Your task to perform on an android device: Clear all items from cart on amazon. Add panasonic triple a to the cart on amazon, then select checkout. Image 0: 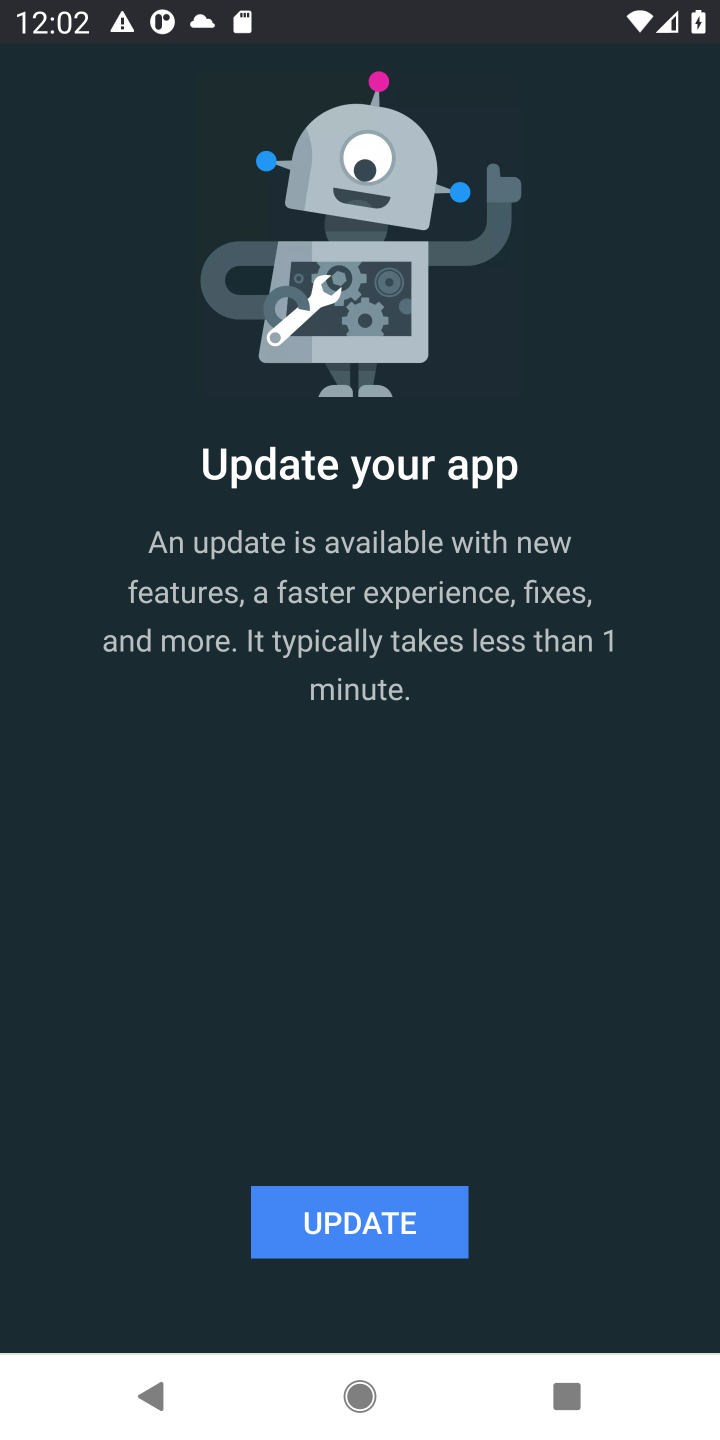
Step 0: press home button
Your task to perform on an android device: Clear all items from cart on amazon. Add panasonic triple a to the cart on amazon, then select checkout. Image 1: 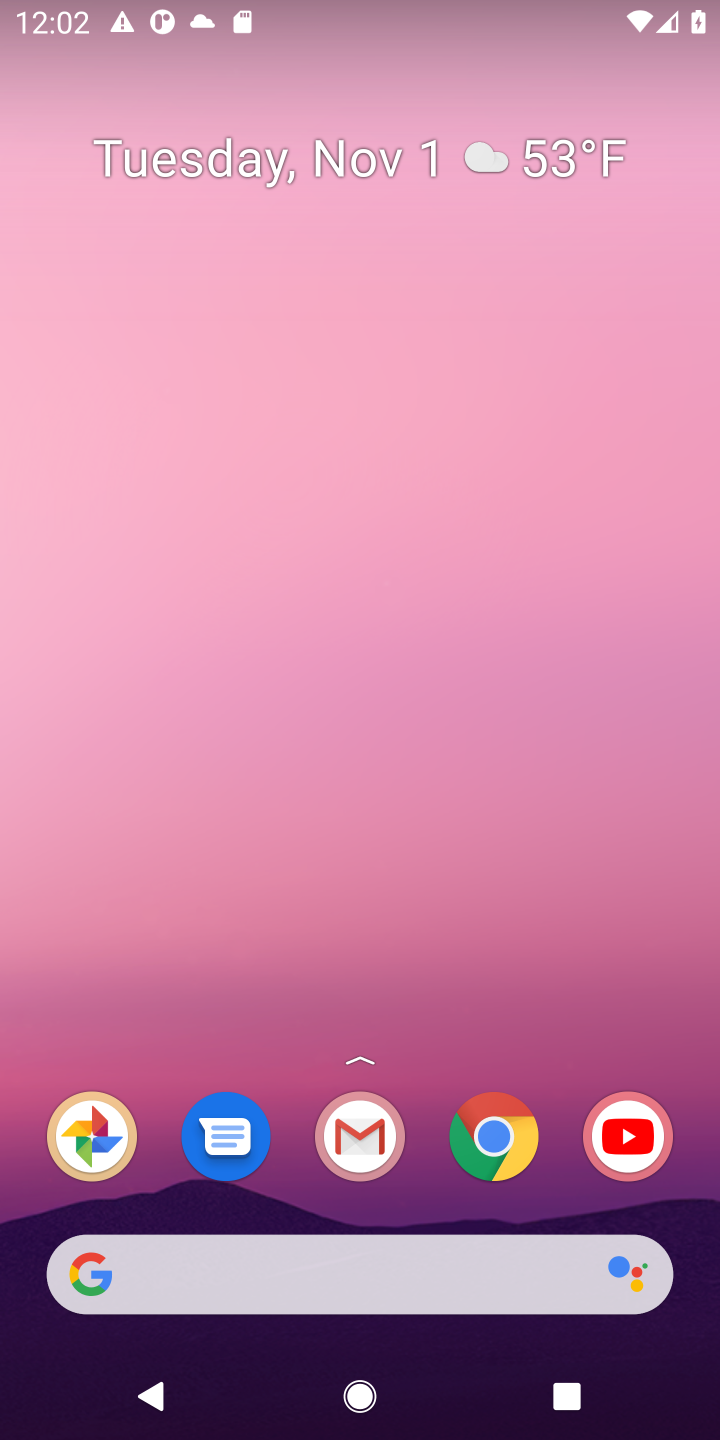
Step 1: click (135, 1267)
Your task to perform on an android device: Clear all items from cart on amazon. Add panasonic triple a to the cart on amazon, then select checkout. Image 2: 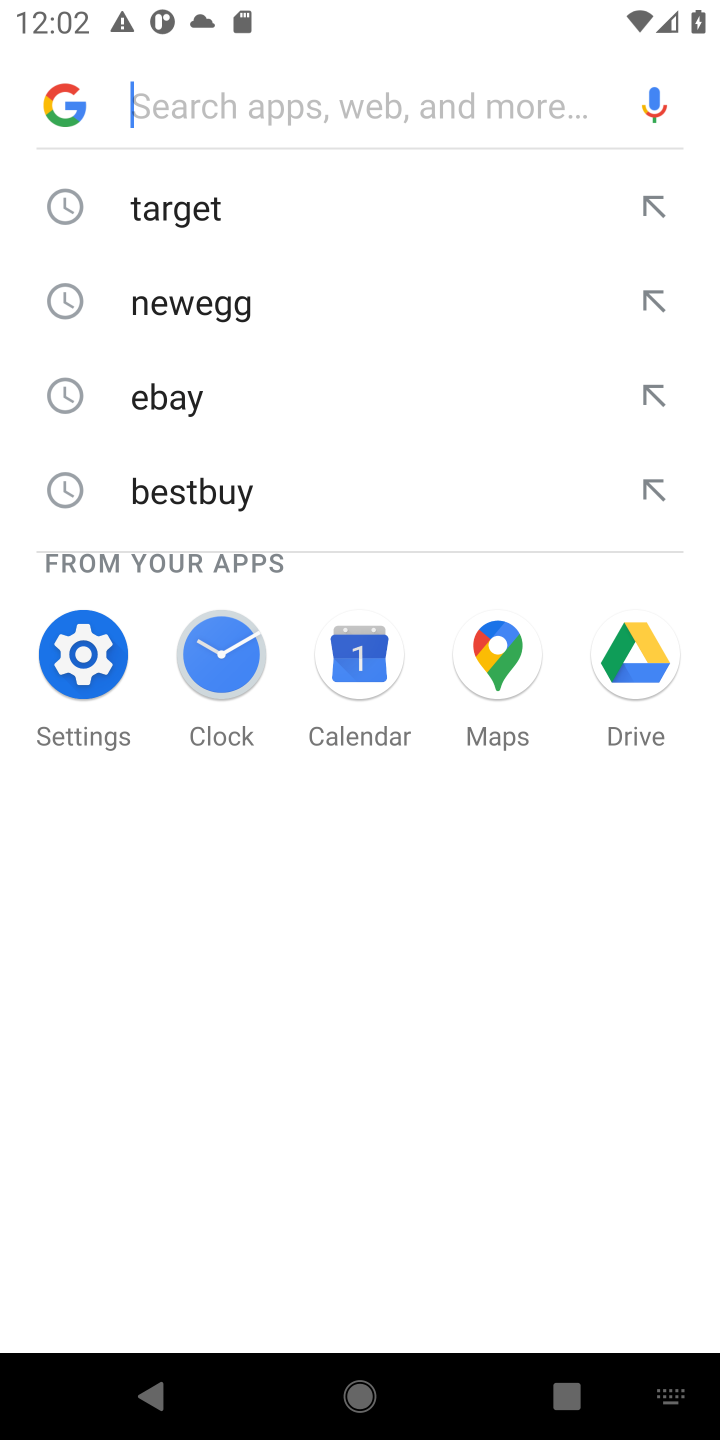
Step 2: type "amazon"
Your task to perform on an android device: Clear all items from cart on amazon. Add panasonic triple a to the cart on amazon, then select checkout. Image 3: 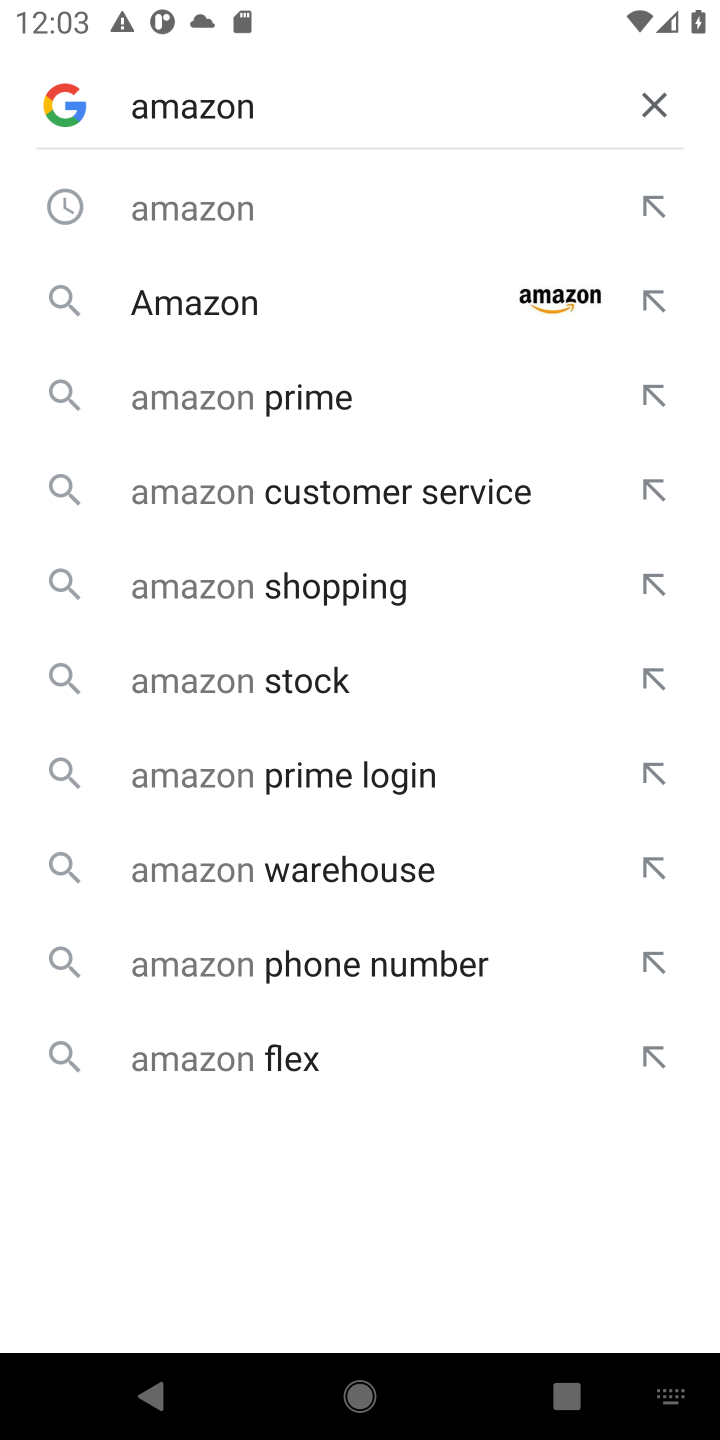
Step 3: press enter
Your task to perform on an android device: Clear all items from cart on amazon. Add panasonic triple a to the cart on amazon, then select checkout. Image 4: 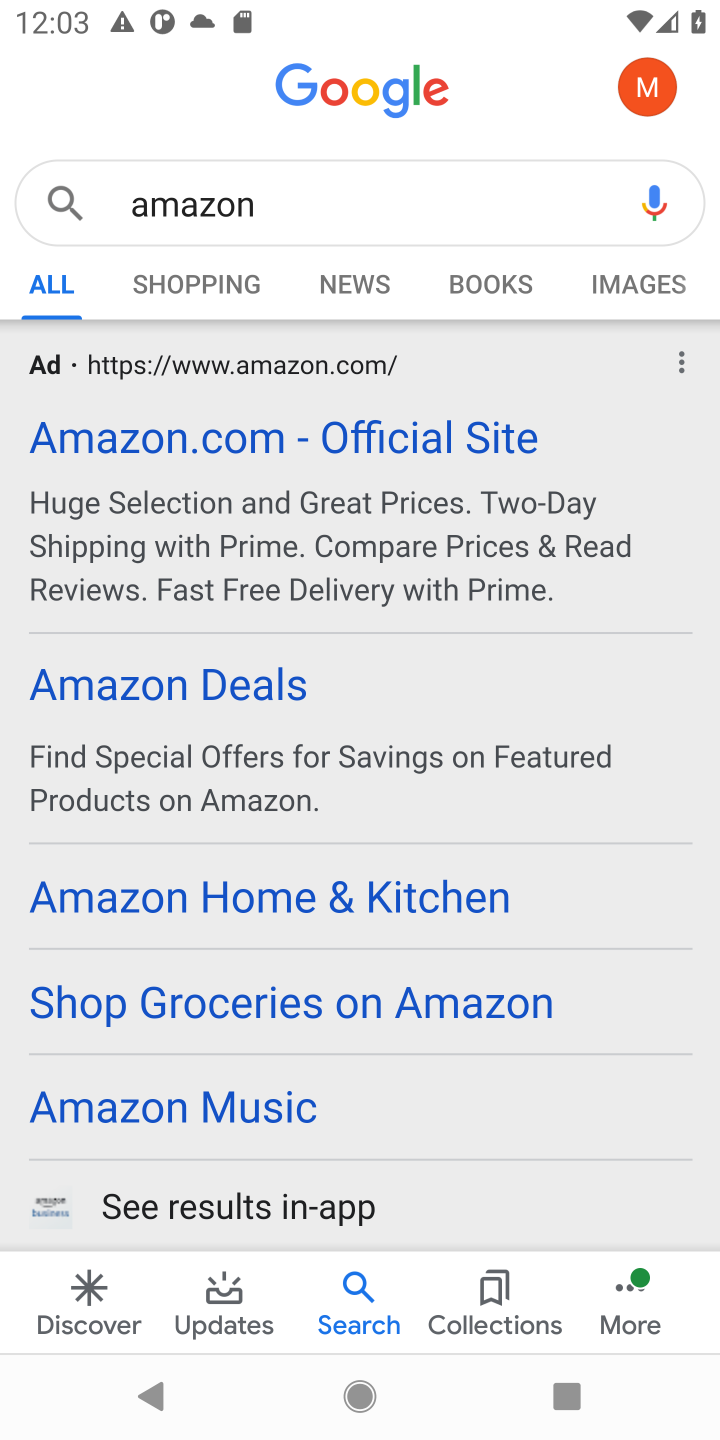
Step 4: click (241, 442)
Your task to perform on an android device: Clear all items from cart on amazon. Add panasonic triple a to the cart on amazon, then select checkout. Image 5: 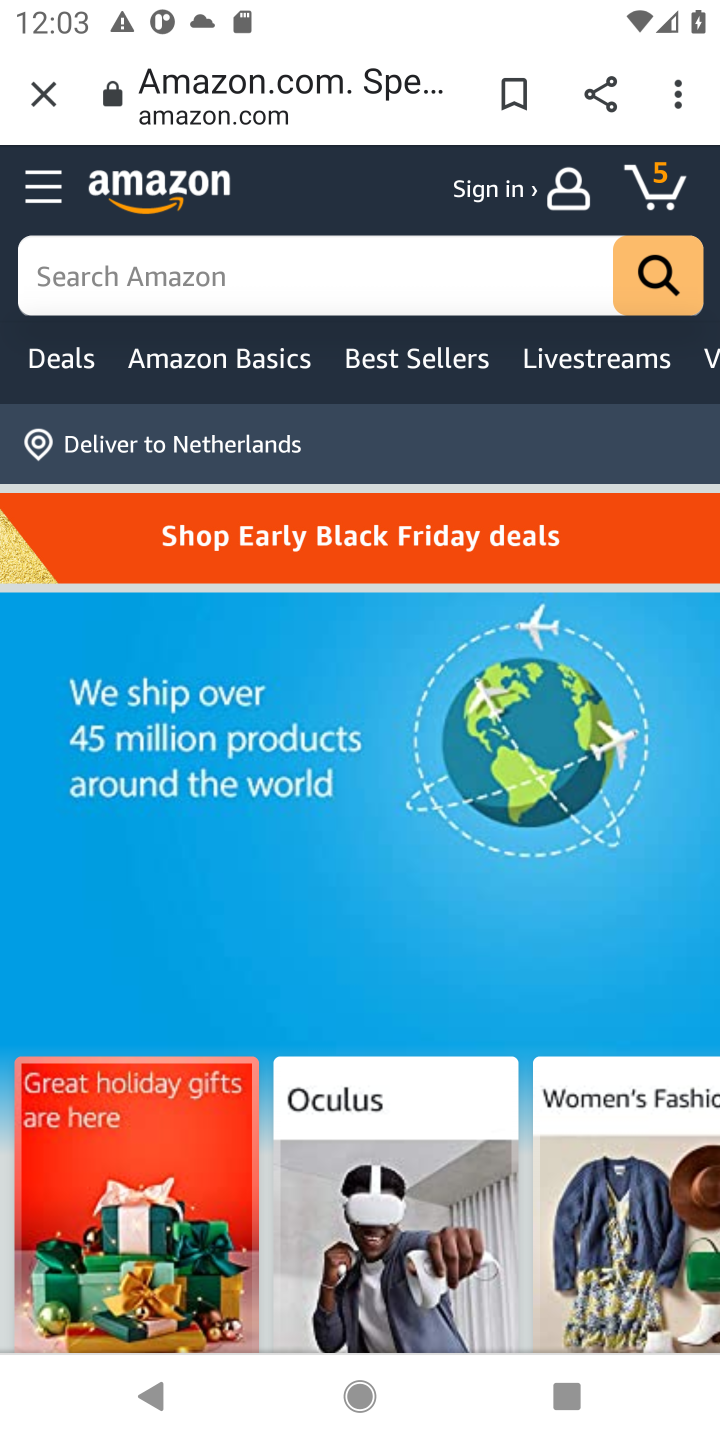
Step 5: click (674, 184)
Your task to perform on an android device: Clear all items from cart on amazon. Add panasonic triple a to the cart on amazon, then select checkout. Image 6: 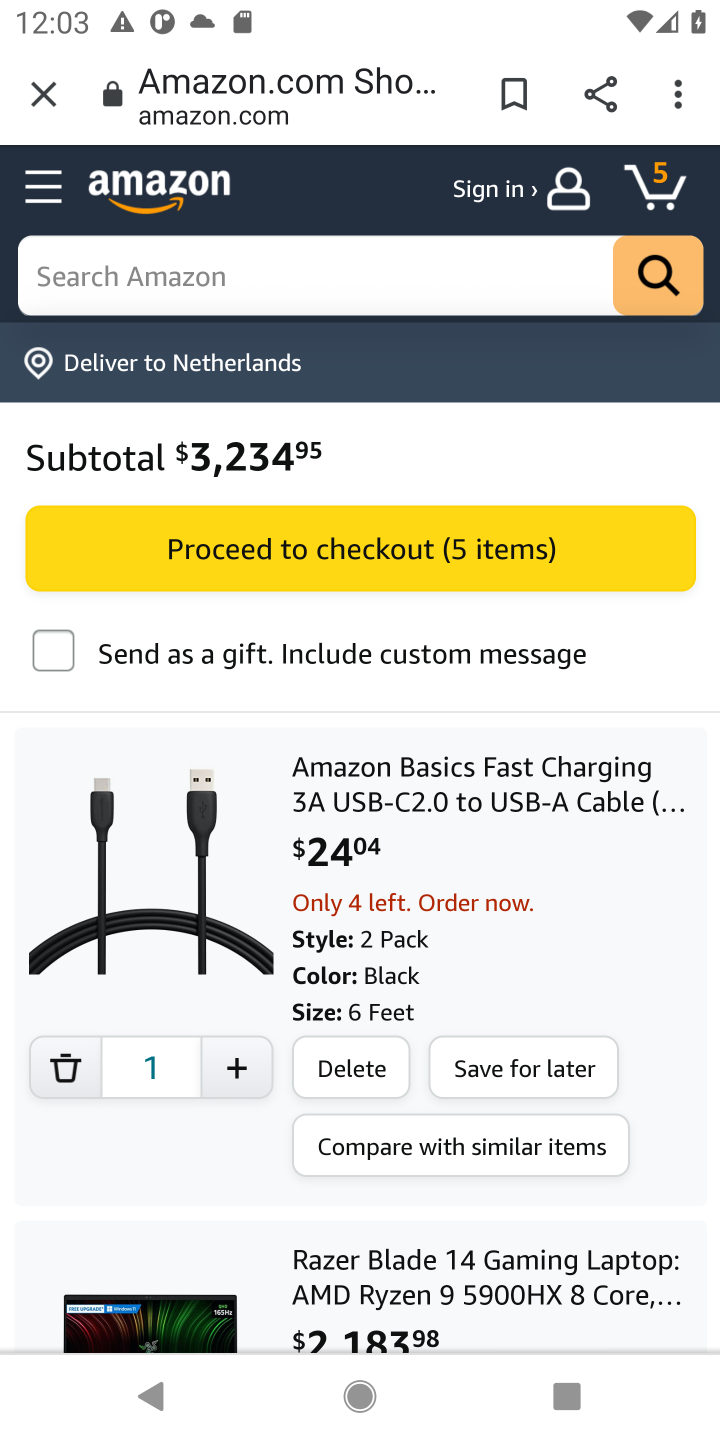
Step 6: click (49, 1063)
Your task to perform on an android device: Clear all items from cart on amazon. Add panasonic triple a to the cart on amazon, then select checkout. Image 7: 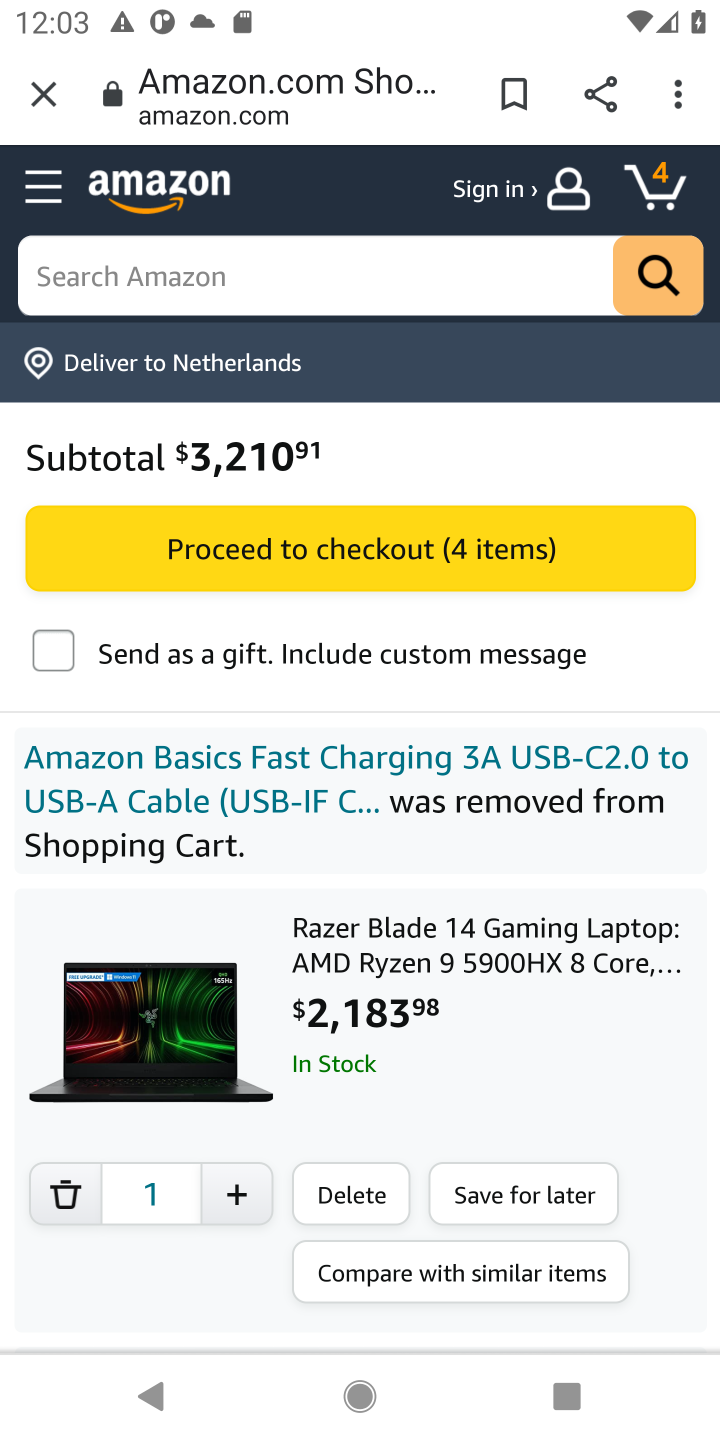
Step 7: click (68, 1204)
Your task to perform on an android device: Clear all items from cart on amazon. Add panasonic triple a to the cart on amazon, then select checkout. Image 8: 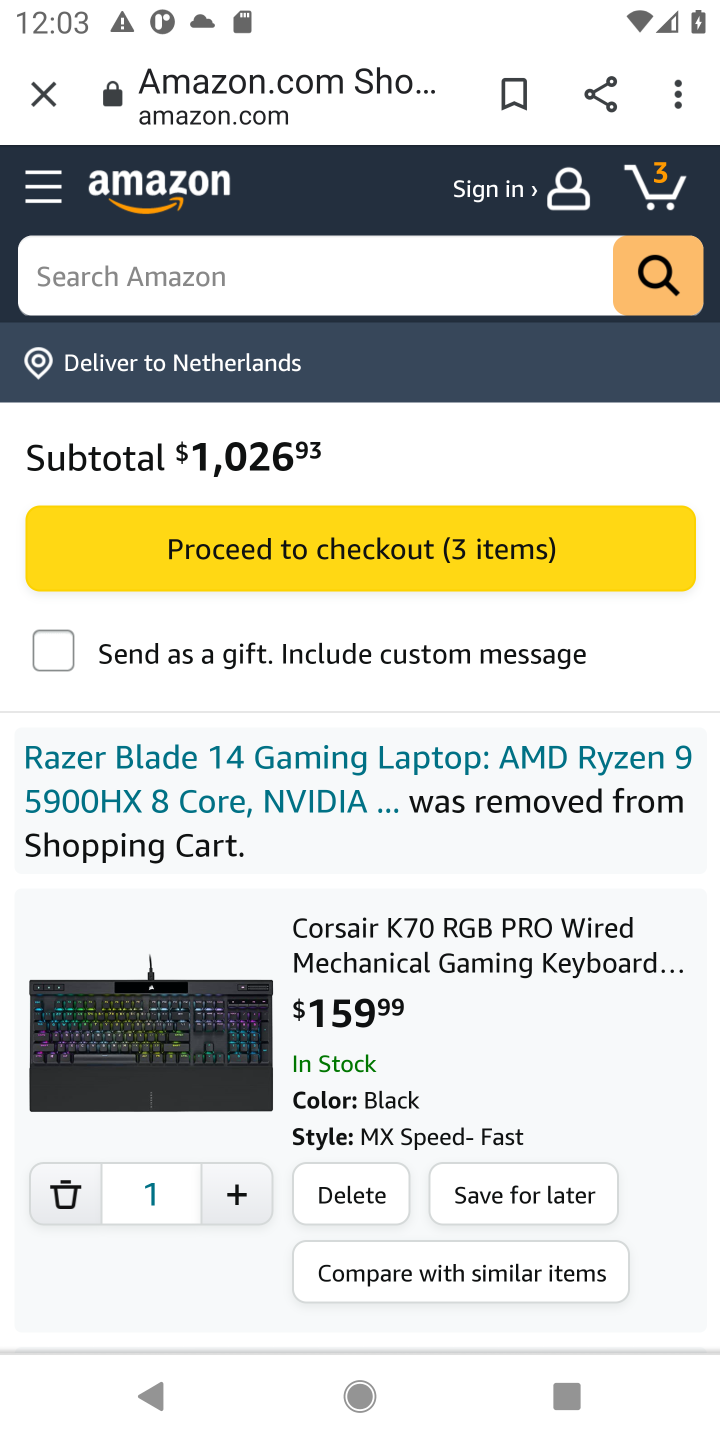
Step 8: click (68, 1204)
Your task to perform on an android device: Clear all items from cart on amazon. Add panasonic triple a to the cart on amazon, then select checkout. Image 9: 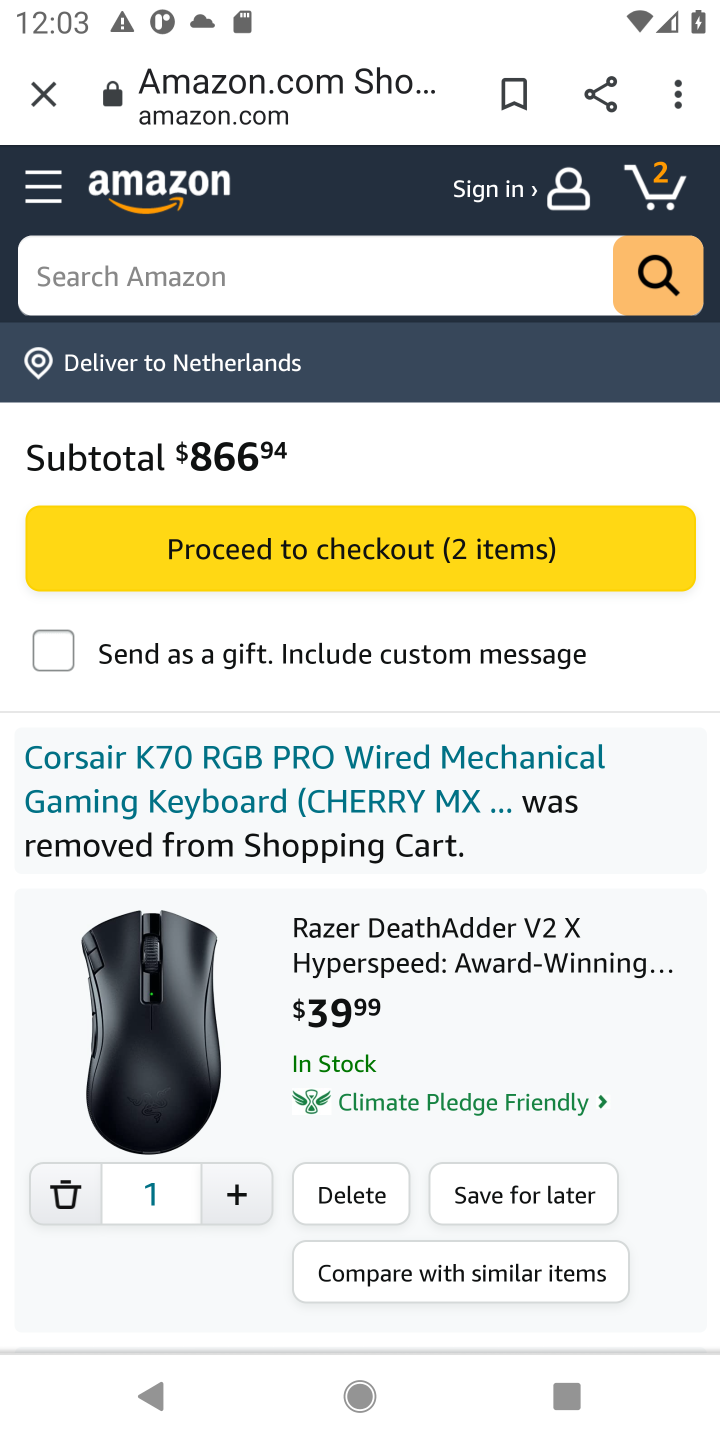
Step 9: click (68, 1204)
Your task to perform on an android device: Clear all items from cart on amazon. Add panasonic triple a to the cart on amazon, then select checkout. Image 10: 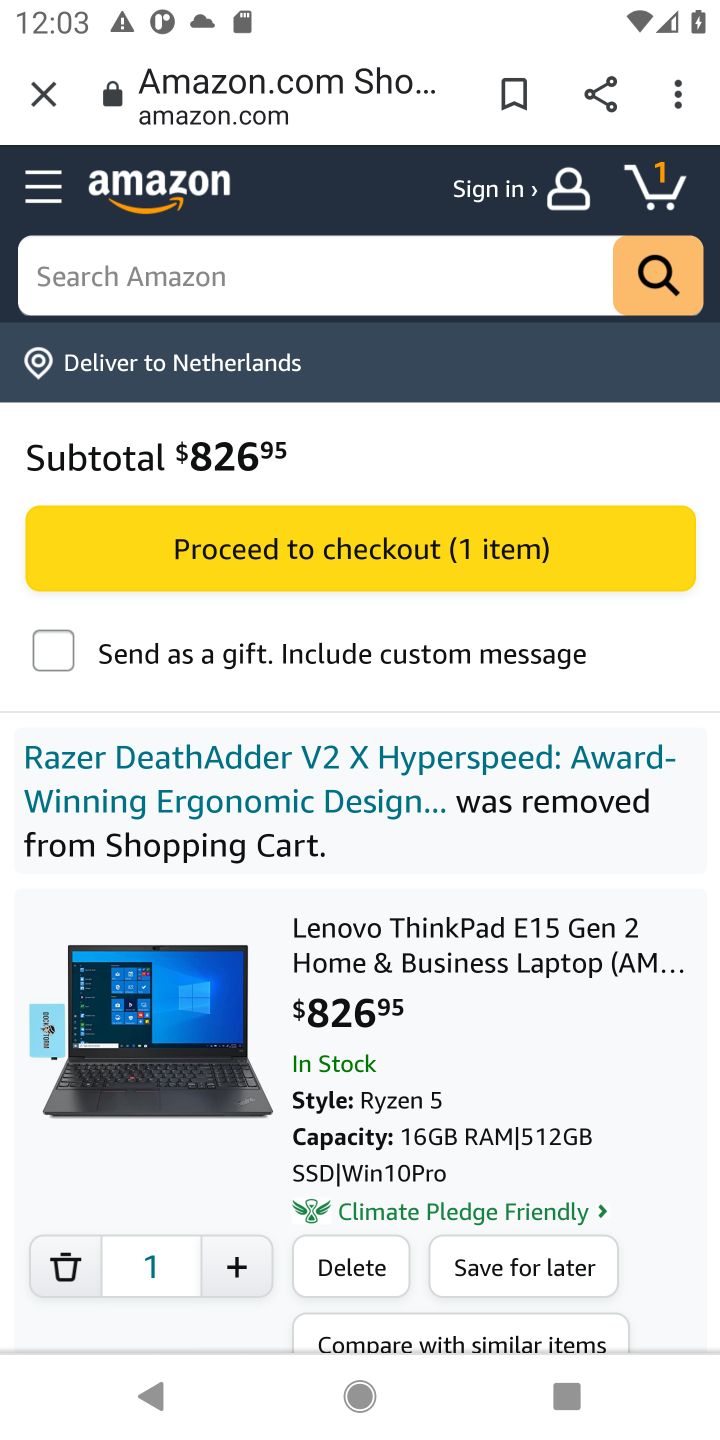
Step 10: click (55, 1275)
Your task to perform on an android device: Clear all items from cart on amazon. Add panasonic triple a to the cart on amazon, then select checkout. Image 11: 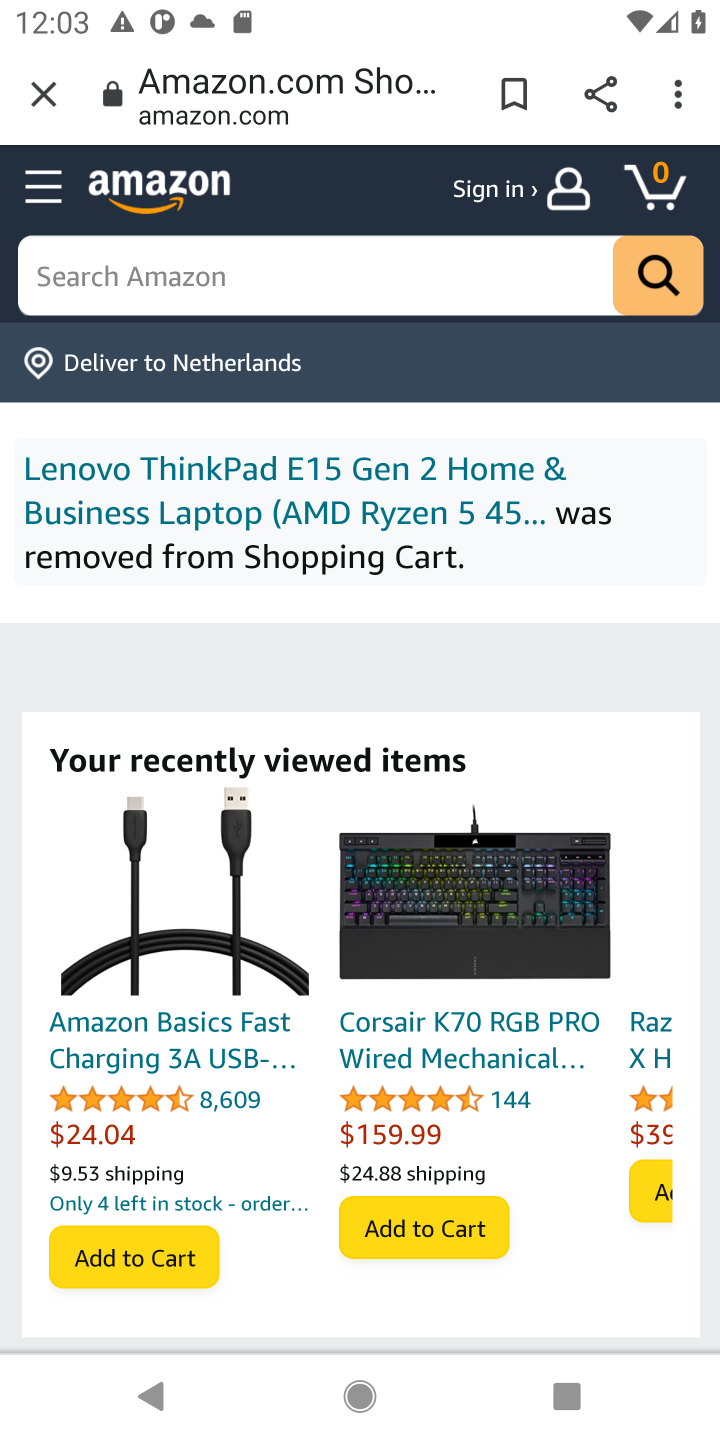
Step 11: click (223, 275)
Your task to perform on an android device: Clear all items from cart on amazon. Add panasonic triple a to the cart on amazon, then select checkout. Image 12: 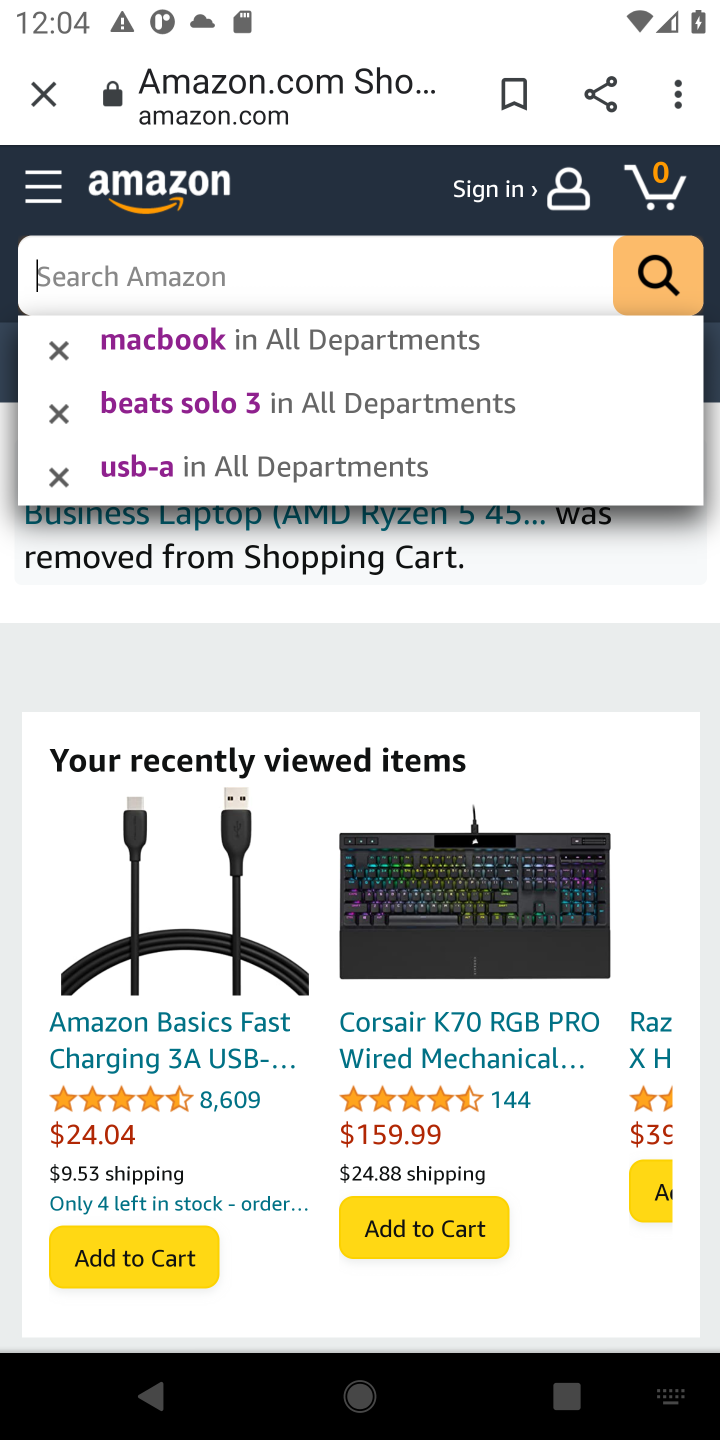
Step 12: type " panasonic triple a"
Your task to perform on an android device: Clear all items from cart on amazon. Add panasonic triple a to the cart on amazon, then select checkout. Image 13: 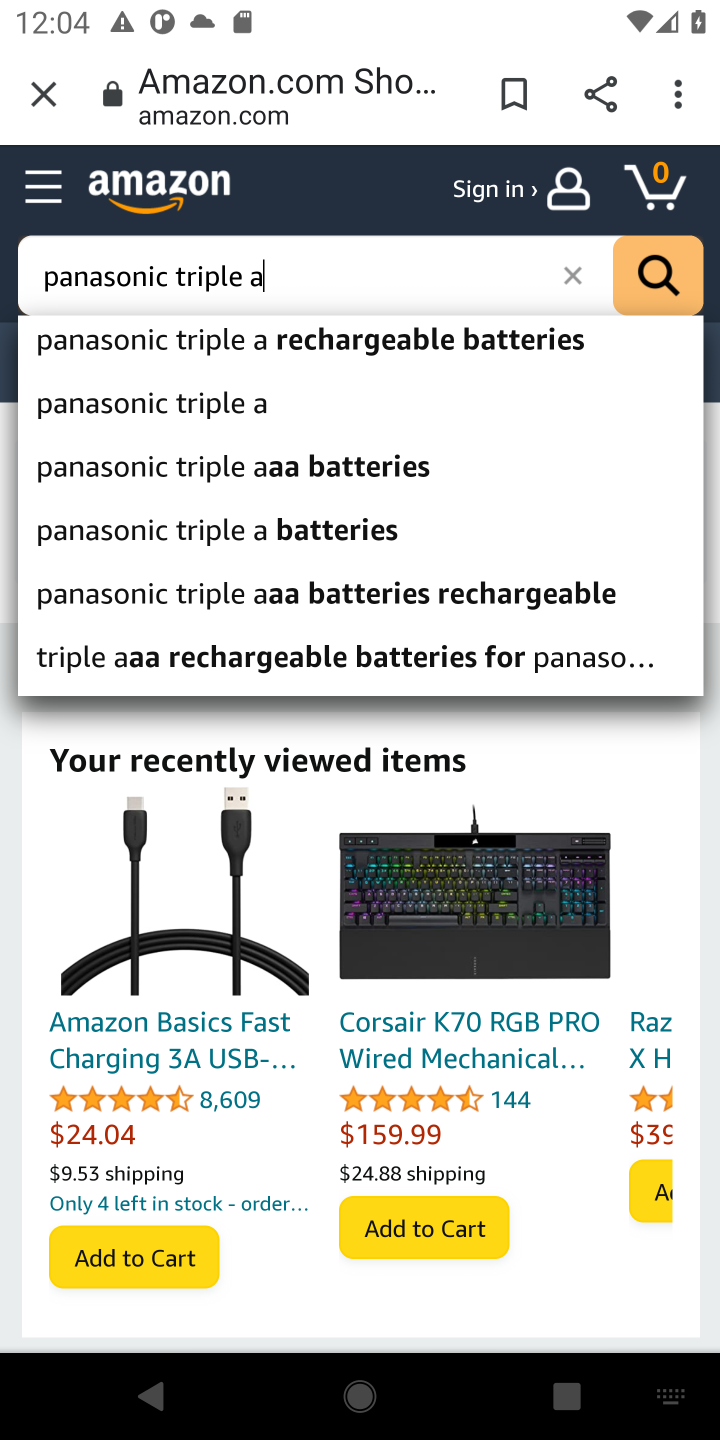
Step 13: click (654, 260)
Your task to perform on an android device: Clear all items from cart on amazon. Add panasonic triple a to the cart on amazon, then select checkout. Image 14: 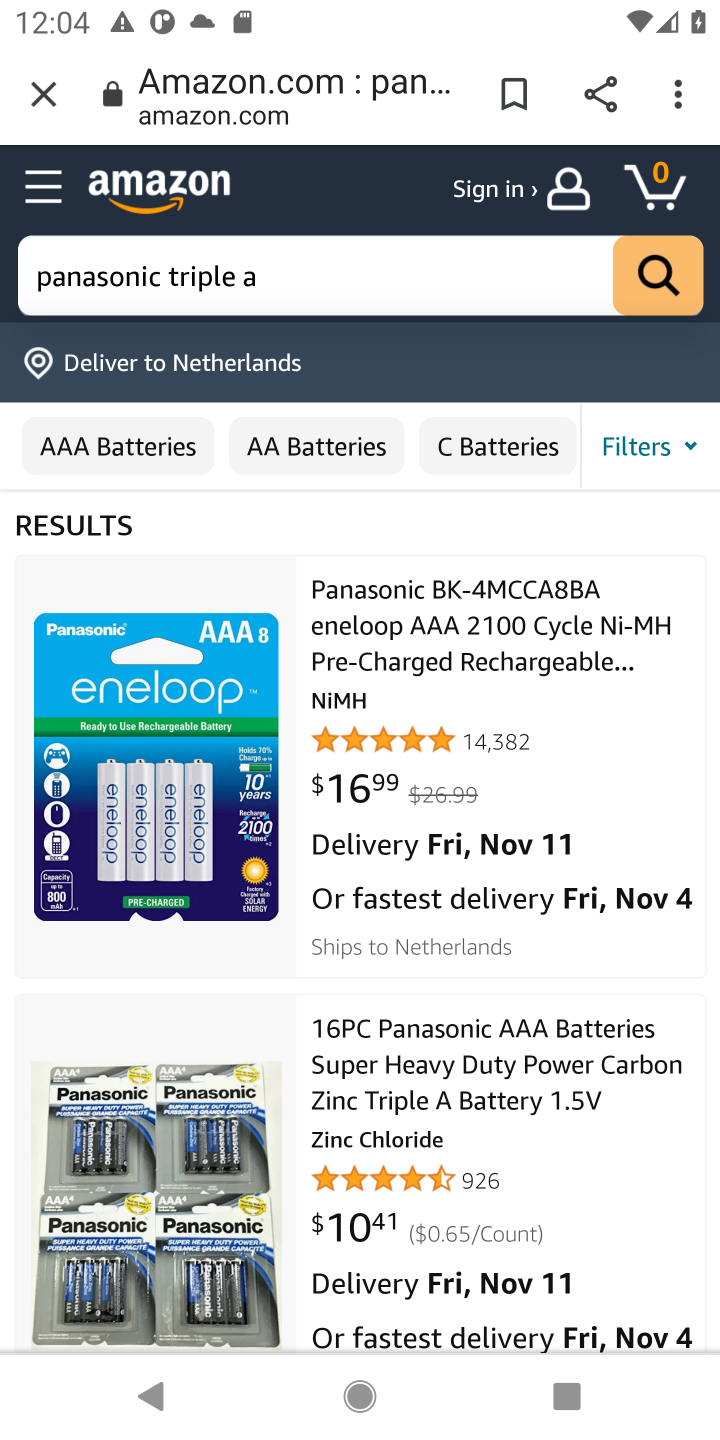
Step 14: click (478, 622)
Your task to perform on an android device: Clear all items from cart on amazon. Add panasonic triple a to the cart on amazon, then select checkout. Image 15: 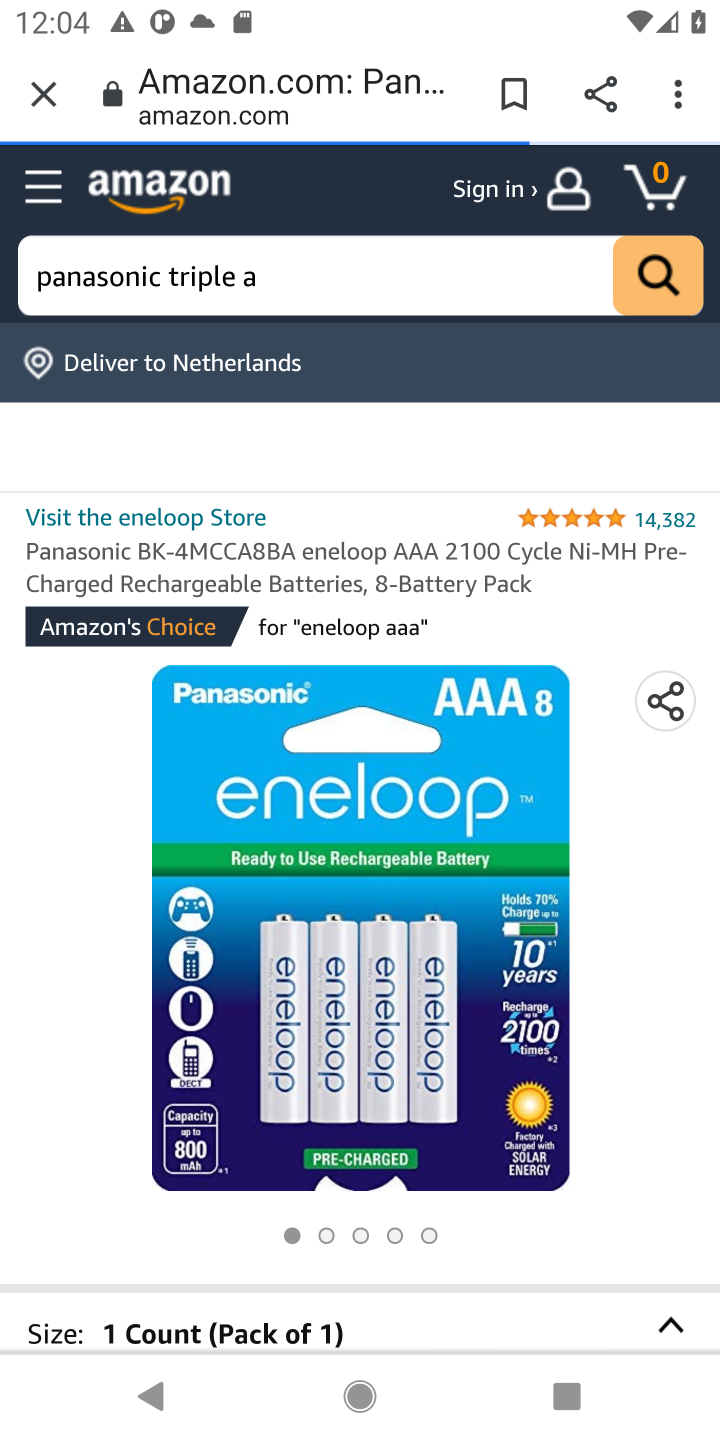
Step 15: drag from (255, 881) to (330, 550)
Your task to perform on an android device: Clear all items from cart on amazon. Add panasonic triple a to the cart on amazon, then select checkout. Image 16: 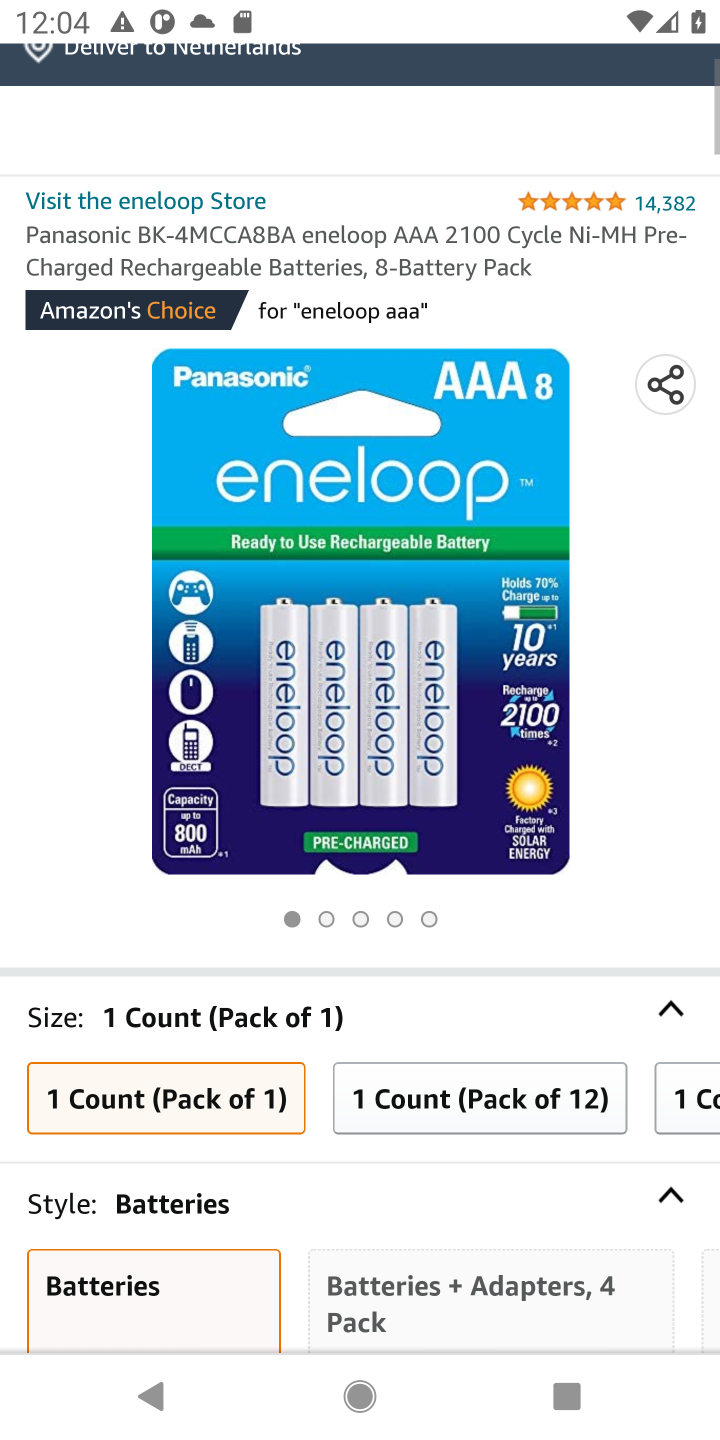
Step 16: drag from (370, 1205) to (448, 437)
Your task to perform on an android device: Clear all items from cart on amazon. Add panasonic triple a to the cart on amazon, then select checkout. Image 17: 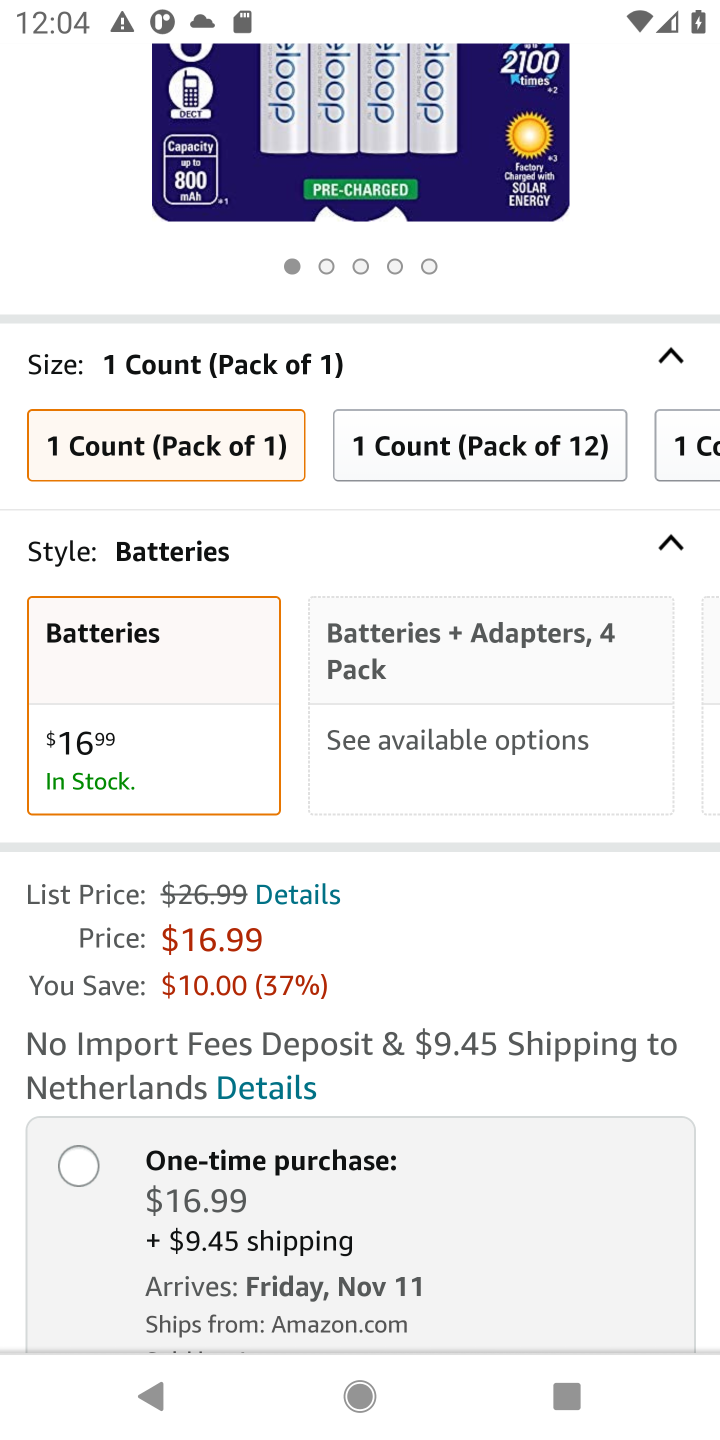
Step 17: drag from (421, 906) to (430, 464)
Your task to perform on an android device: Clear all items from cart on amazon. Add panasonic triple a to the cart on amazon, then select checkout. Image 18: 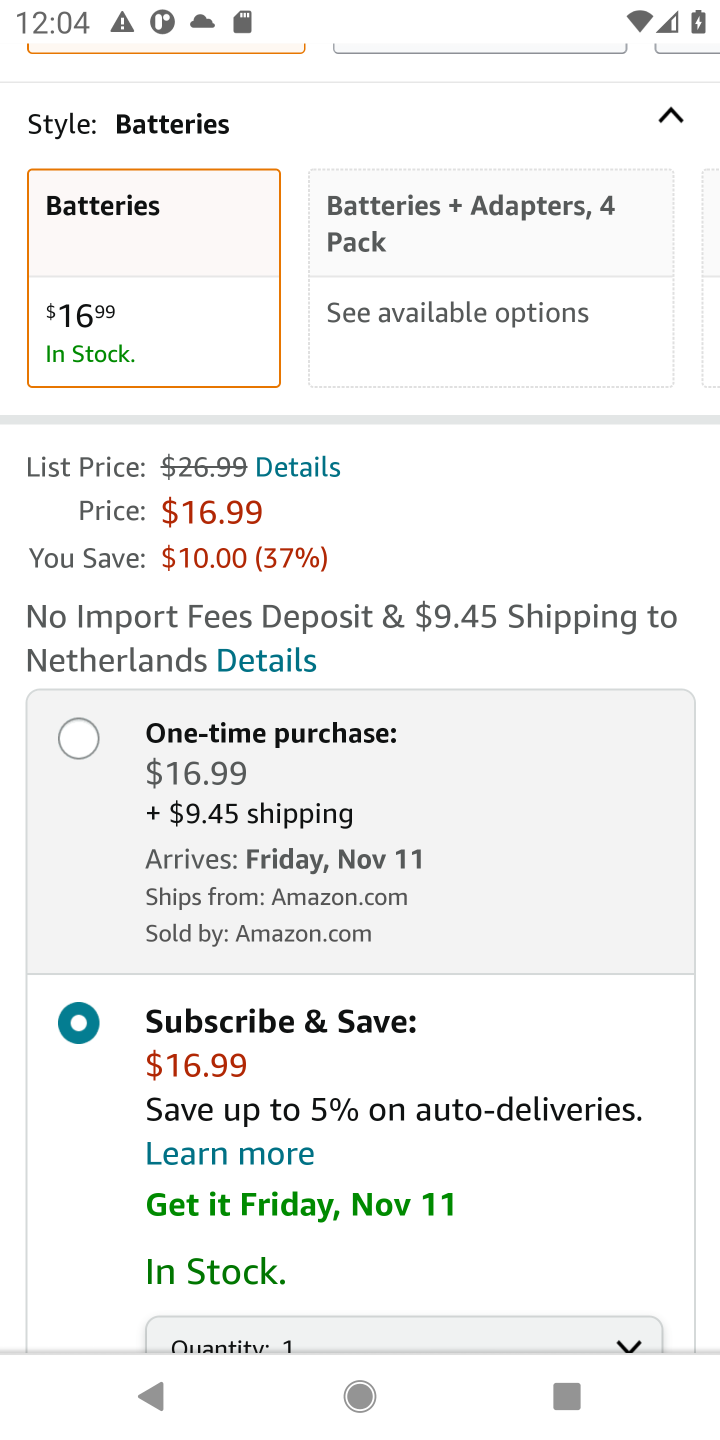
Step 18: drag from (442, 1067) to (495, 367)
Your task to perform on an android device: Clear all items from cart on amazon. Add panasonic triple a to the cart on amazon, then select checkout. Image 19: 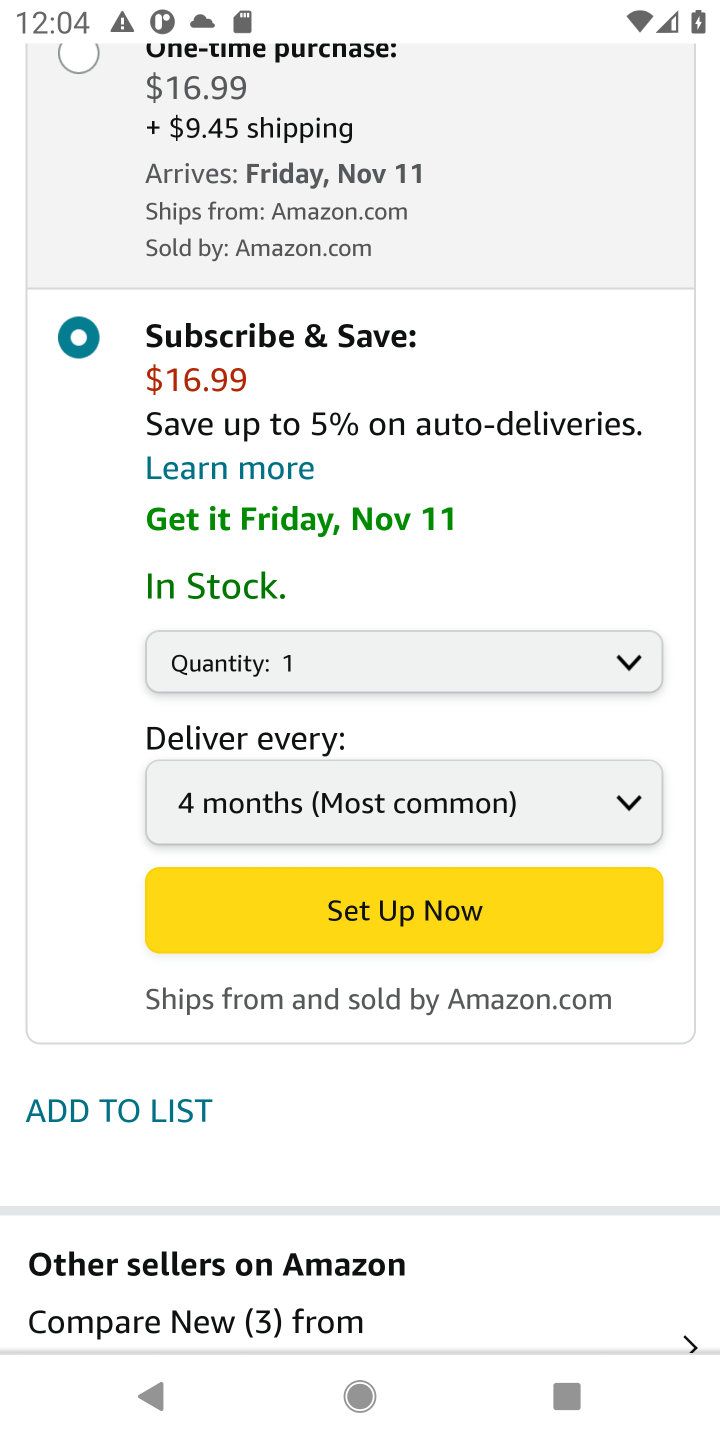
Step 19: drag from (423, 1134) to (455, 453)
Your task to perform on an android device: Clear all items from cart on amazon. Add panasonic triple a to the cart on amazon, then select checkout. Image 20: 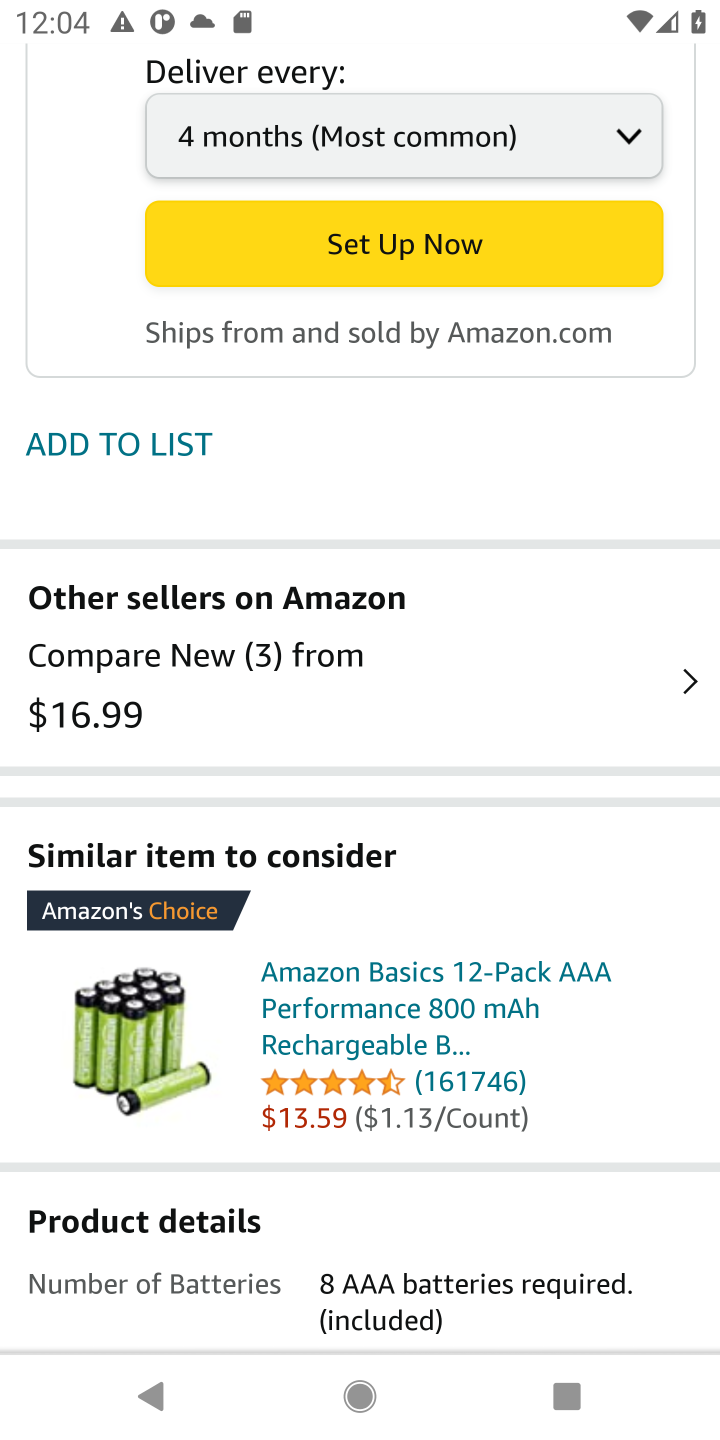
Step 20: click (398, 255)
Your task to perform on an android device: Clear all items from cart on amazon. Add panasonic triple a to the cart on amazon, then select checkout. Image 21: 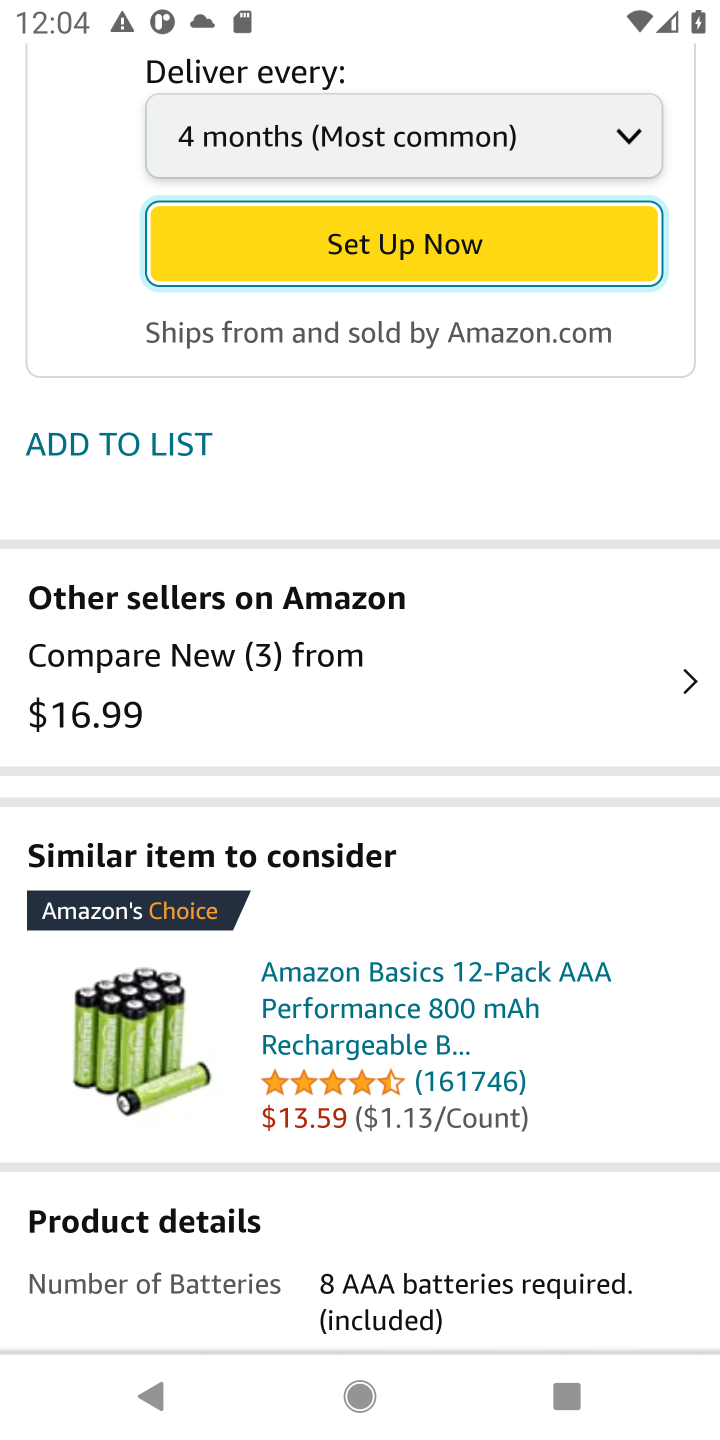
Step 21: click (385, 246)
Your task to perform on an android device: Clear all items from cart on amazon. Add panasonic triple a to the cart on amazon, then select checkout. Image 22: 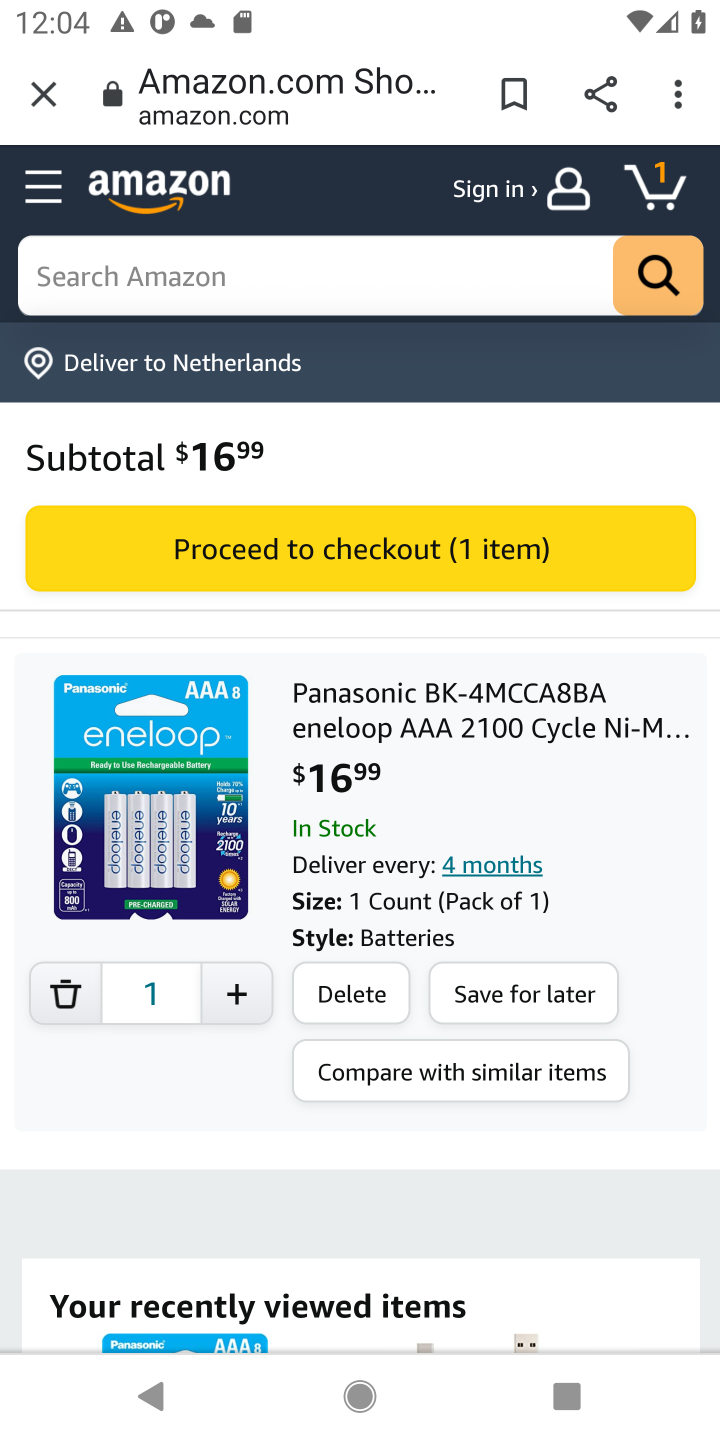
Step 22: click (338, 534)
Your task to perform on an android device: Clear all items from cart on amazon. Add panasonic triple a to the cart on amazon, then select checkout. Image 23: 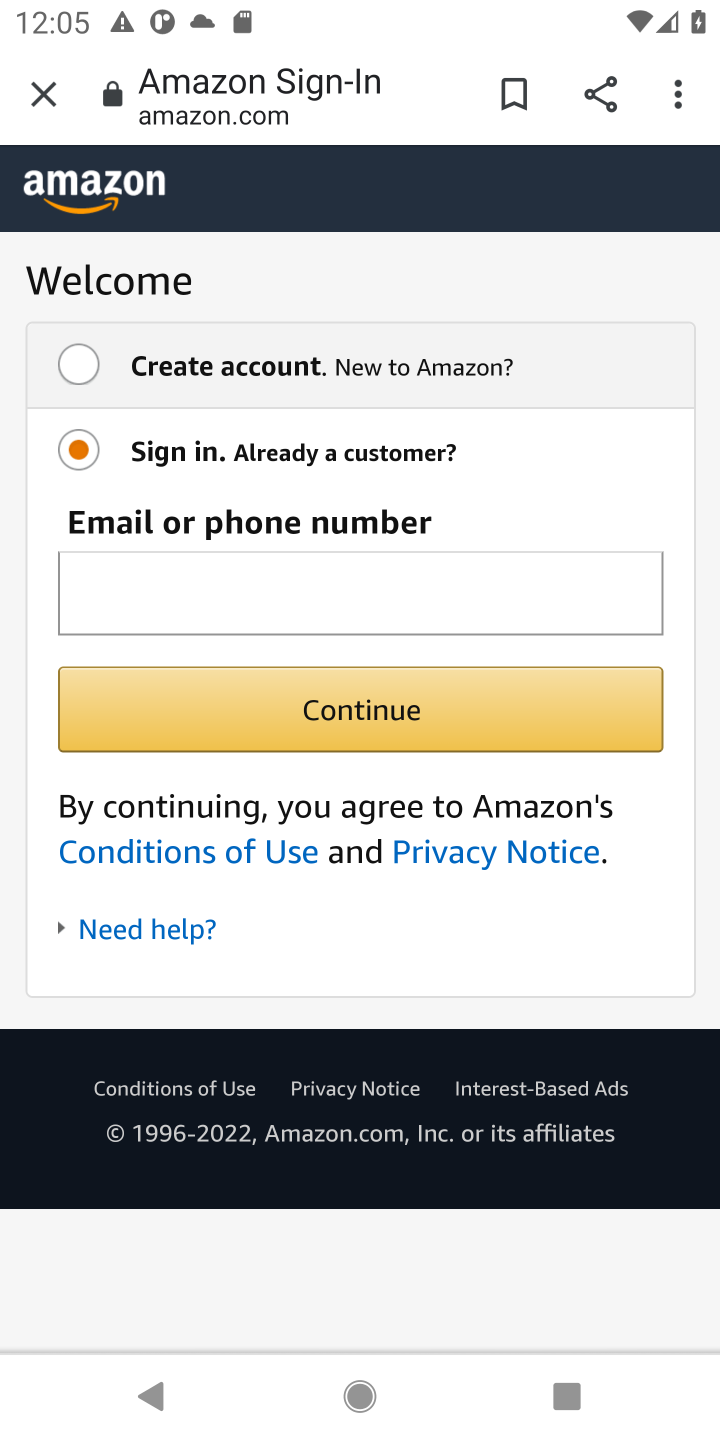
Step 23: task complete